Your task to perform on an android device: Open Google Maps Image 0: 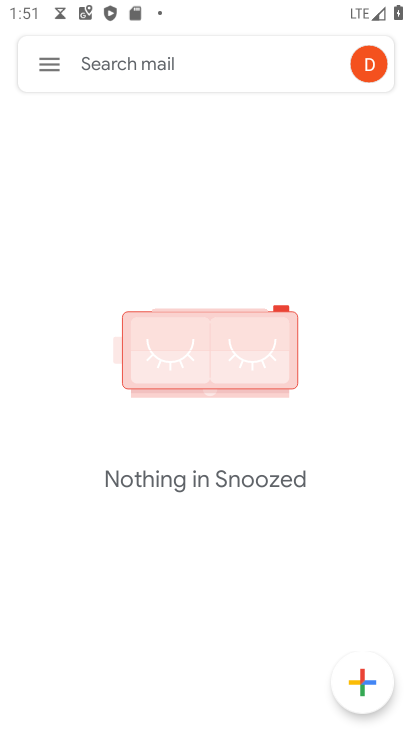
Step 0: press home button
Your task to perform on an android device: Open Google Maps Image 1: 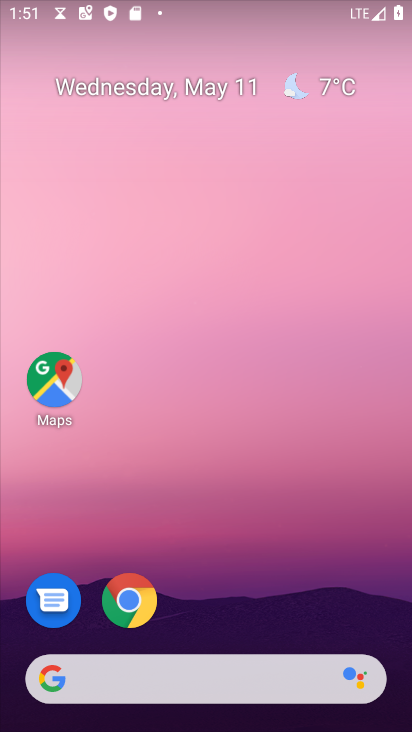
Step 1: click (52, 380)
Your task to perform on an android device: Open Google Maps Image 2: 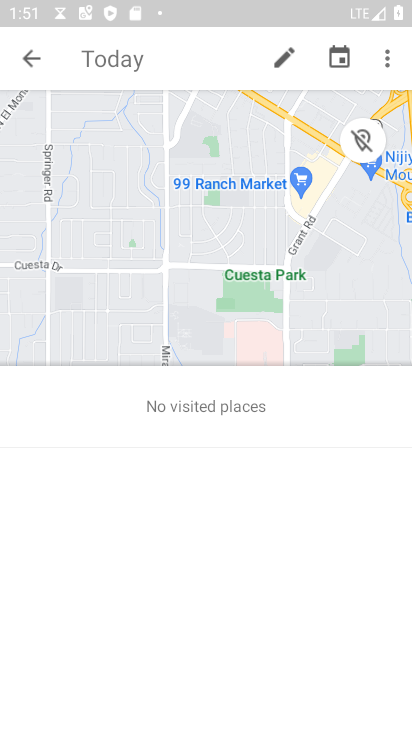
Step 2: task complete